Your task to perform on an android device: Open wifi settings Image 0: 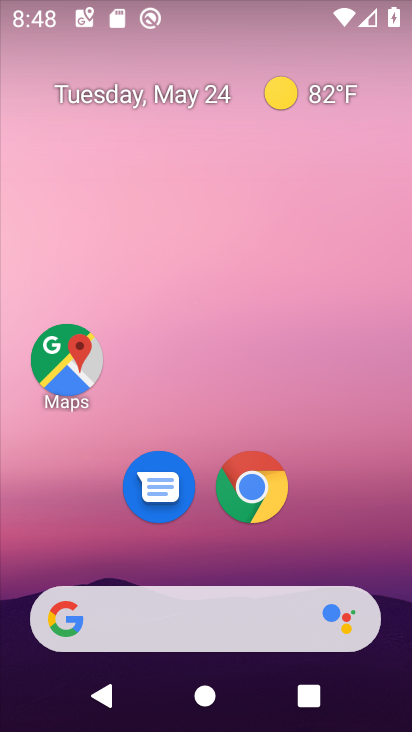
Step 0: drag from (339, 533) to (313, 192)
Your task to perform on an android device: Open wifi settings Image 1: 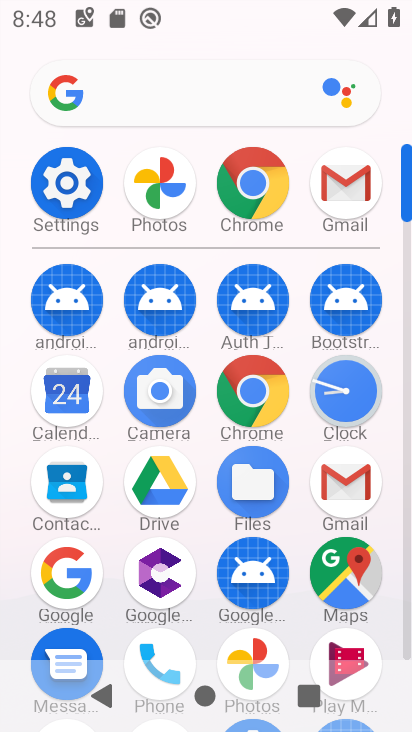
Step 1: click (77, 188)
Your task to perform on an android device: Open wifi settings Image 2: 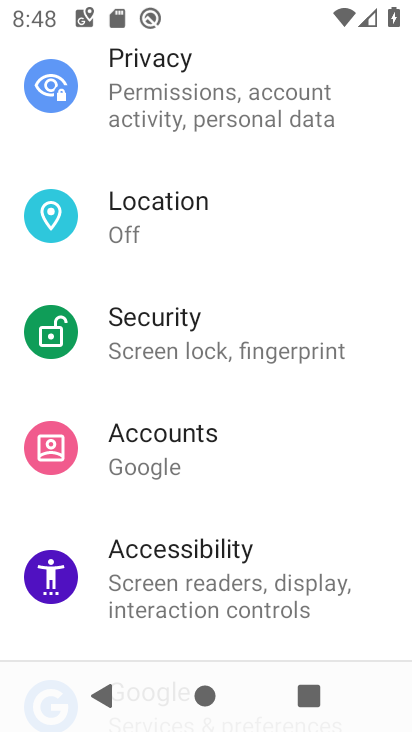
Step 2: drag from (202, 225) to (240, 616)
Your task to perform on an android device: Open wifi settings Image 3: 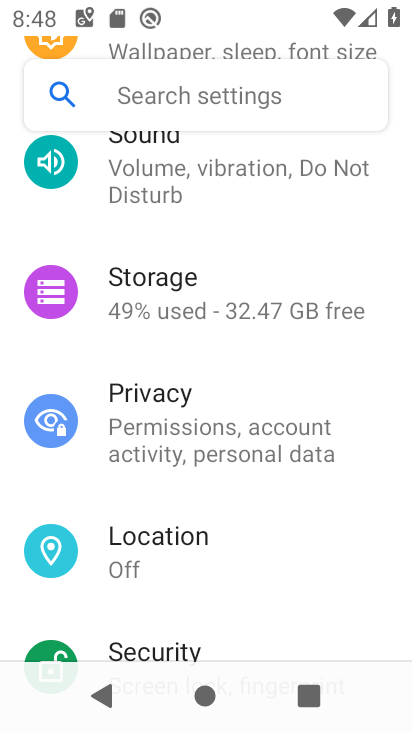
Step 3: drag from (204, 256) to (234, 664)
Your task to perform on an android device: Open wifi settings Image 4: 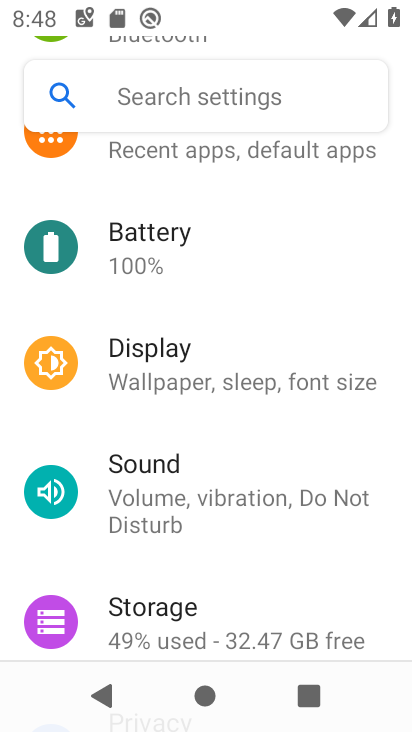
Step 4: drag from (218, 205) to (297, 618)
Your task to perform on an android device: Open wifi settings Image 5: 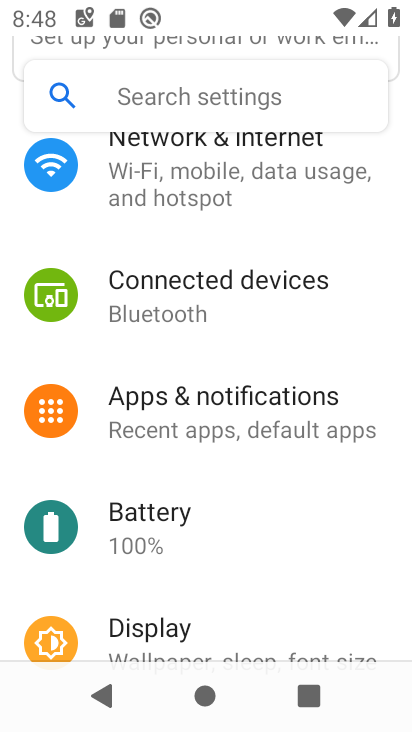
Step 5: drag from (228, 134) to (266, 639)
Your task to perform on an android device: Open wifi settings Image 6: 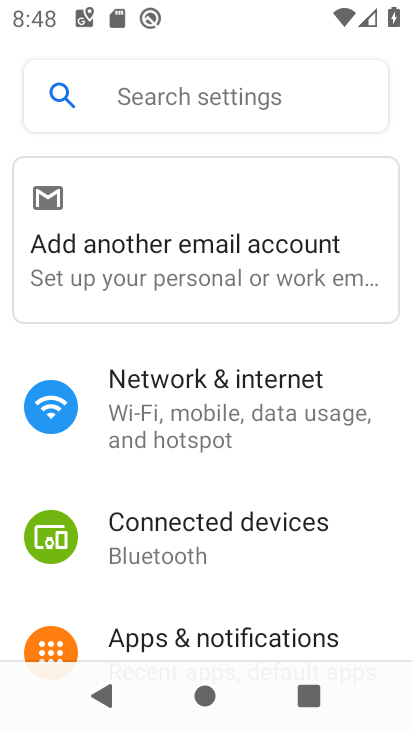
Step 6: click (217, 395)
Your task to perform on an android device: Open wifi settings Image 7: 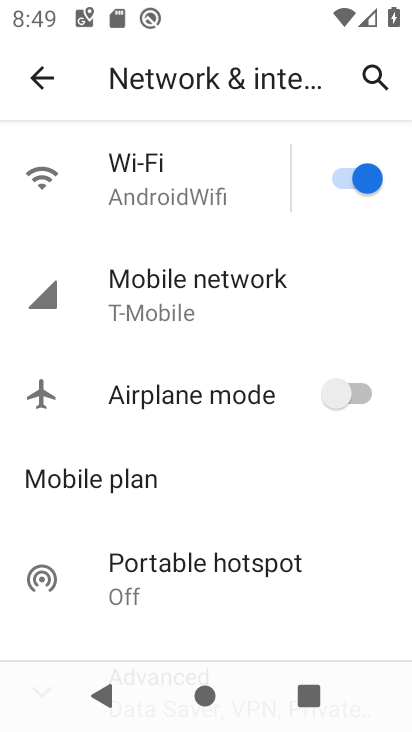
Step 7: click (171, 180)
Your task to perform on an android device: Open wifi settings Image 8: 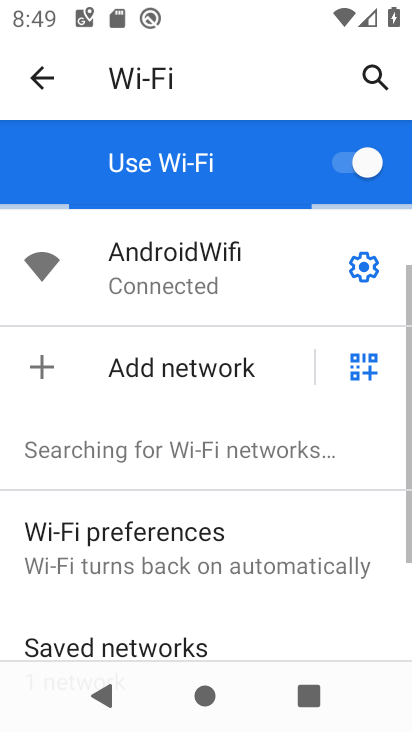
Step 8: task complete